Your task to perform on an android device: Show me recent news Image 0: 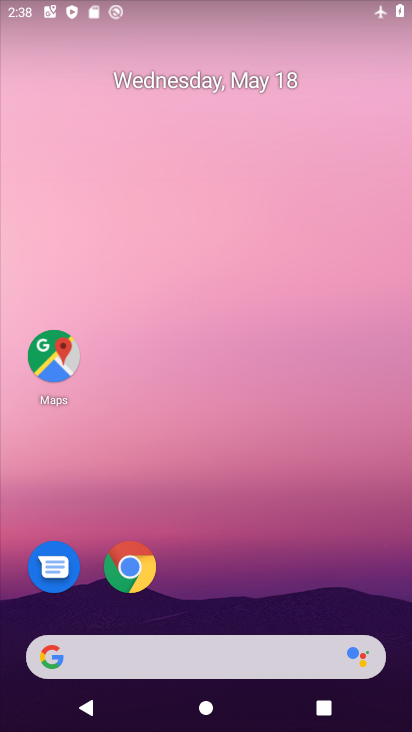
Step 0: click (128, 566)
Your task to perform on an android device: Show me recent news Image 1: 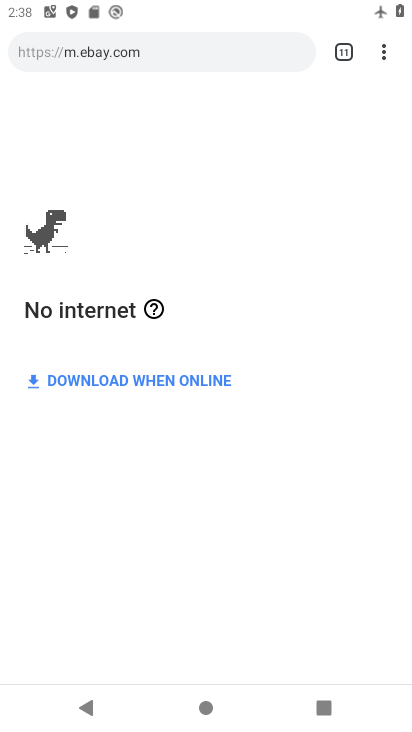
Step 1: click (370, 44)
Your task to perform on an android device: Show me recent news Image 2: 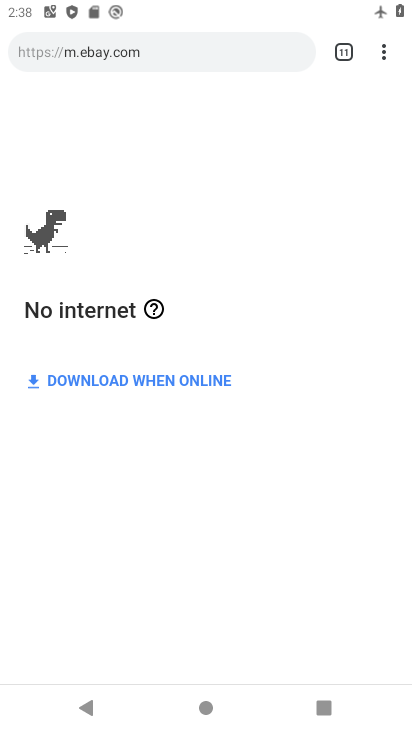
Step 2: click (381, 53)
Your task to perform on an android device: Show me recent news Image 3: 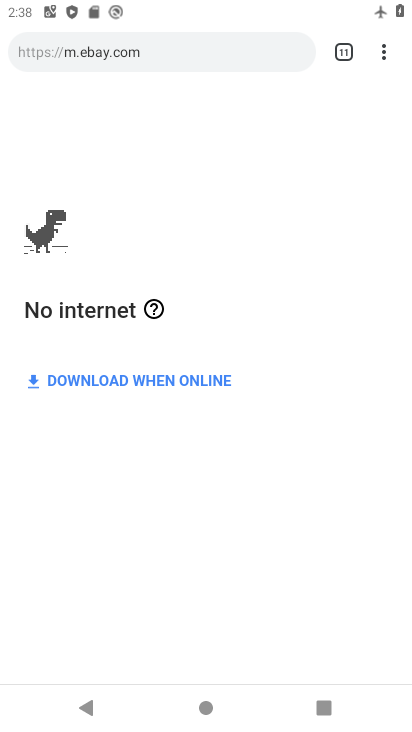
Step 3: click (375, 52)
Your task to perform on an android device: Show me recent news Image 4: 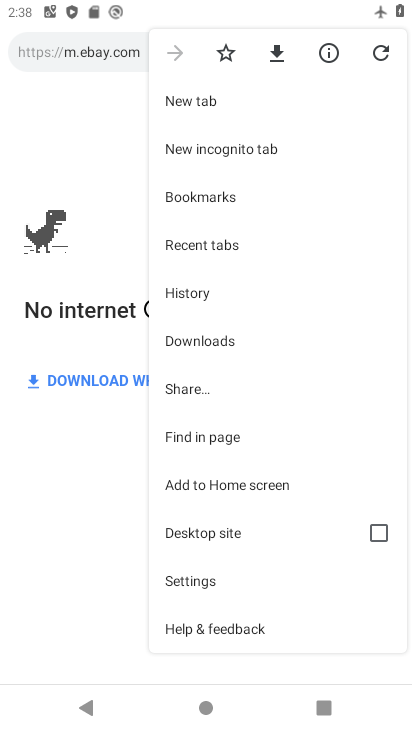
Step 4: click (204, 101)
Your task to perform on an android device: Show me recent news Image 5: 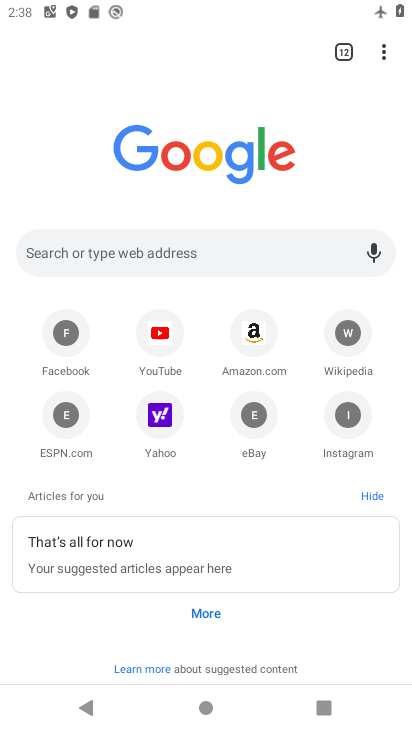
Step 5: click (342, 730)
Your task to perform on an android device: Show me recent news Image 6: 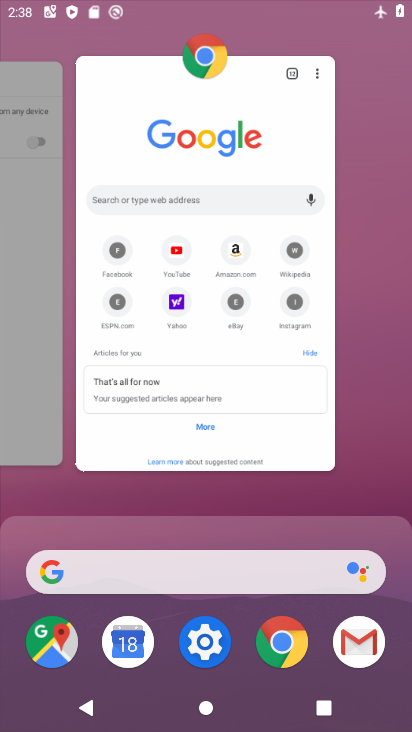
Step 6: click (256, 325)
Your task to perform on an android device: Show me recent news Image 7: 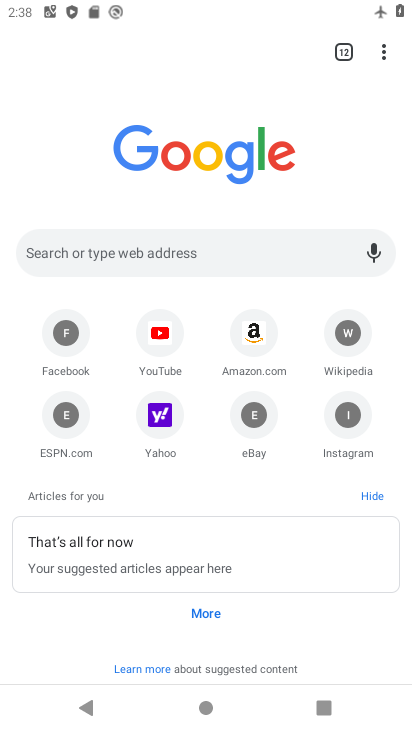
Step 7: click (173, 272)
Your task to perform on an android device: Show me recent news Image 8: 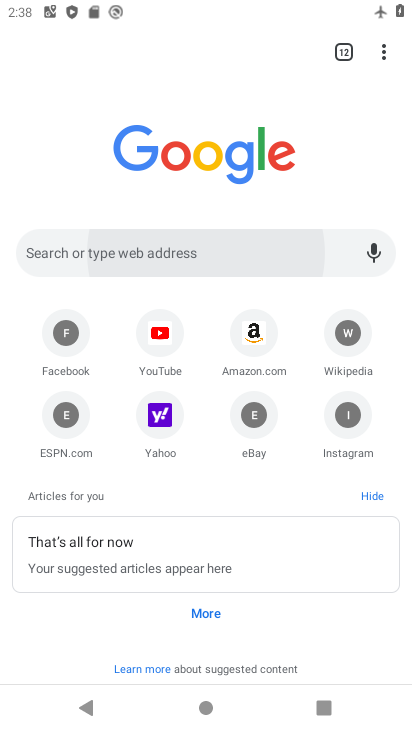
Step 8: click (179, 254)
Your task to perform on an android device: Show me recent news Image 9: 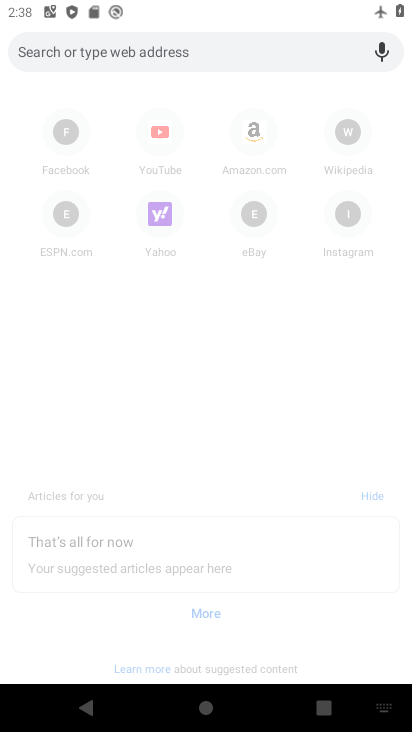
Step 9: type "Show me recent news"
Your task to perform on an android device: Show me recent news Image 10: 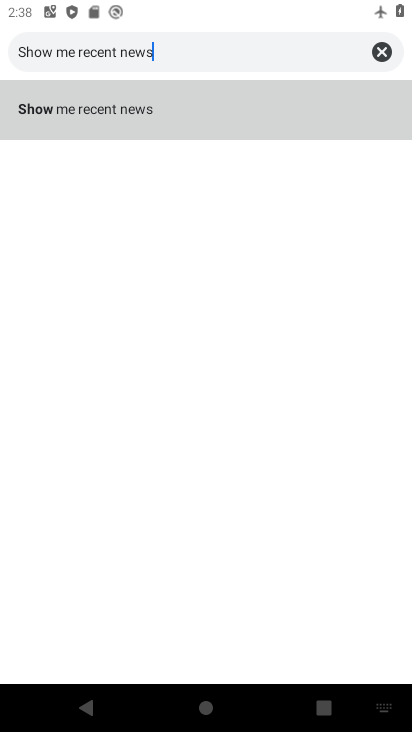
Step 10: click (182, 113)
Your task to perform on an android device: Show me recent news Image 11: 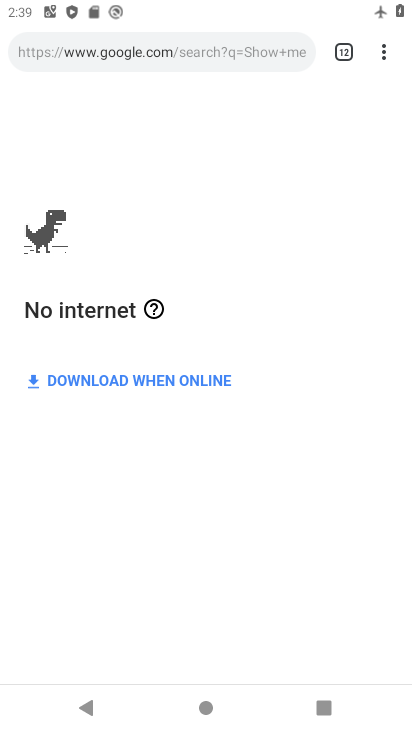
Step 11: task complete